Your task to perform on an android device: open app "Microsoft Excel" (install if not already installed) Image 0: 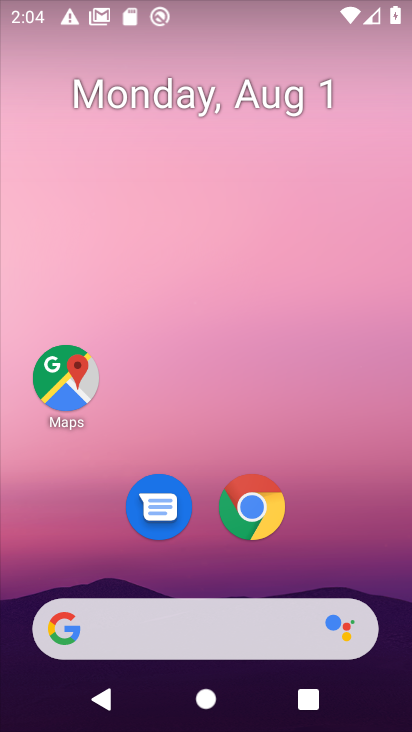
Step 0: drag from (199, 486) to (210, 0)
Your task to perform on an android device: open app "Microsoft Excel" (install if not already installed) Image 1: 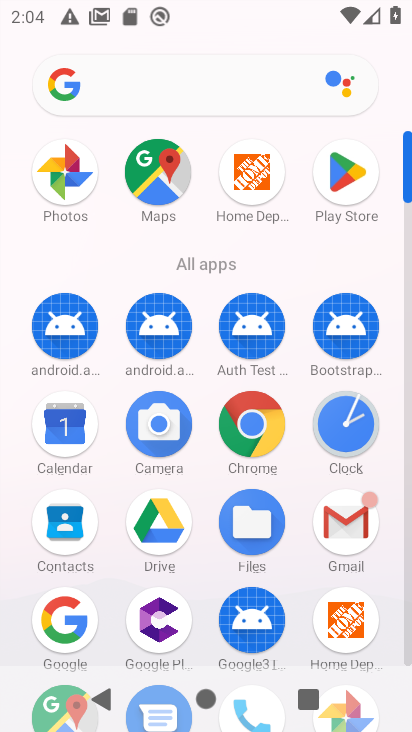
Step 1: click (362, 194)
Your task to perform on an android device: open app "Microsoft Excel" (install if not already installed) Image 2: 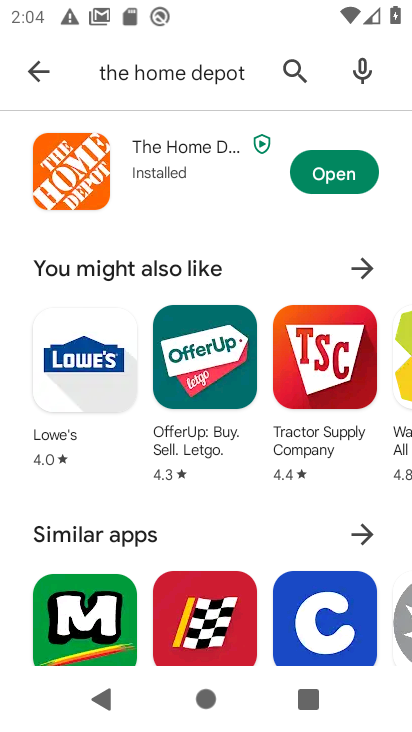
Step 2: click (169, 73)
Your task to perform on an android device: open app "Microsoft Excel" (install if not already installed) Image 3: 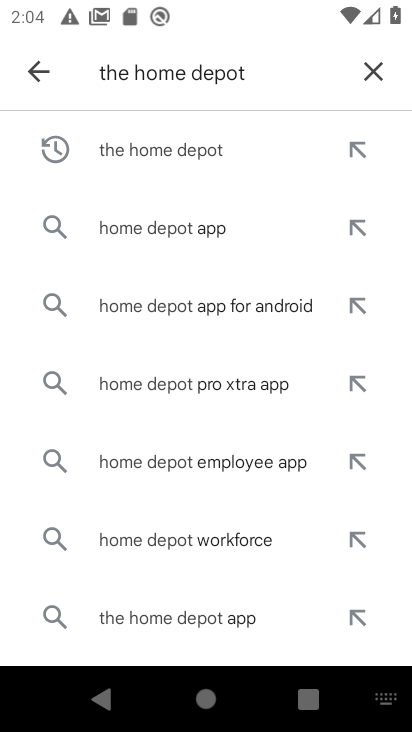
Step 3: click (371, 63)
Your task to perform on an android device: open app "Microsoft Excel" (install if not already installed) Image 4: 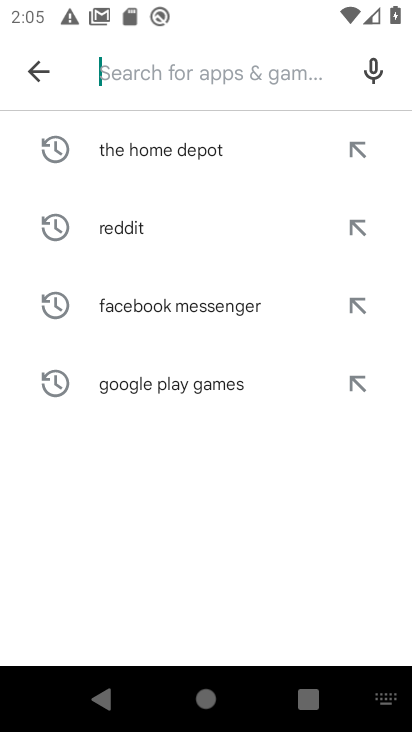
Step 4: type "microsoft excel"
Your task to perform on an android device: open app "Microsoft Excel" (install if not already installed) Image 5: 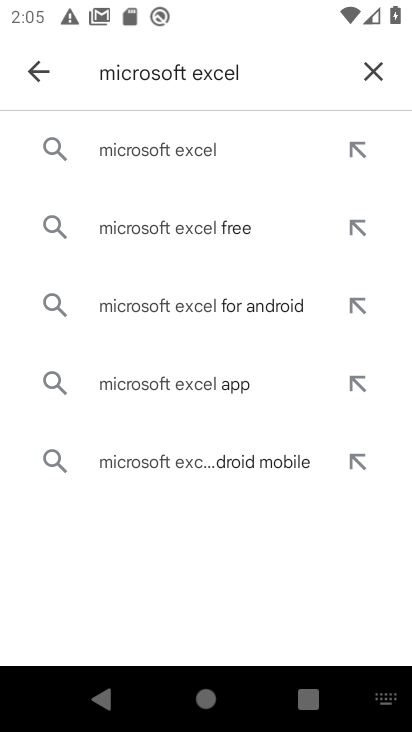
Step 5: click (152, 163)
Your task to perform on an android device: open app "Microsoft Excel" (install if not already installed) Image 6: 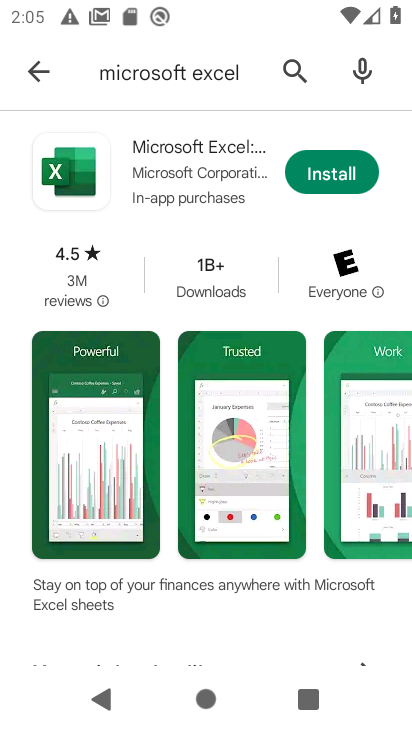
Step 6: click (326, 167)
Your task to perform on an android device: open app "Microsoft Excel" (install if not already installed) Image 7: 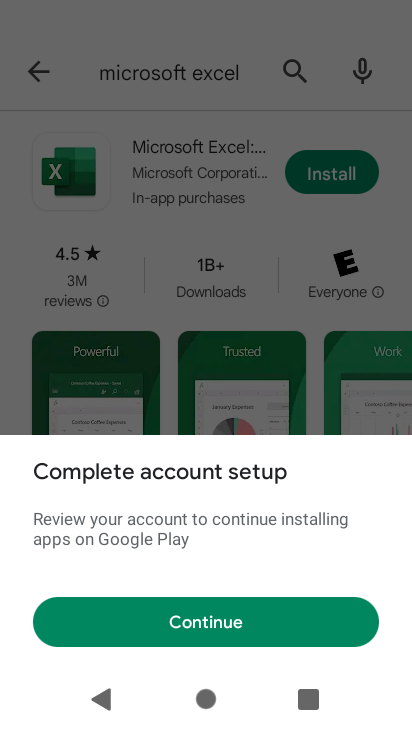
Step 7: click (202, 625)
Your task to perform on an android device: open app "Microsoft Excel" (install if not already installed) Image 8: 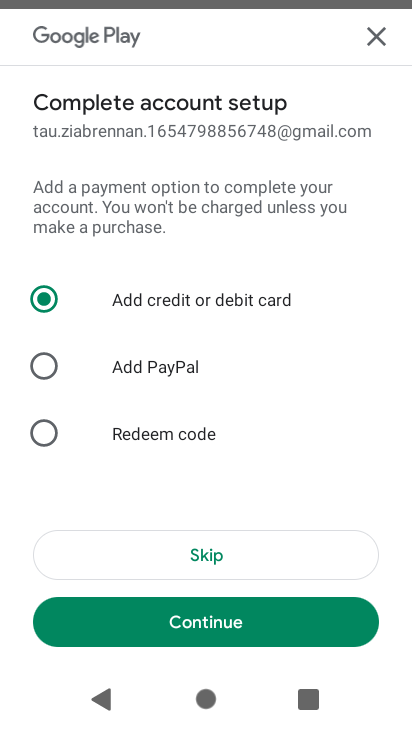
Step 8: click (220, 557)
Your task to perform on an android device: open app "Microsoft Excel" (install if not already installed) Image 9: 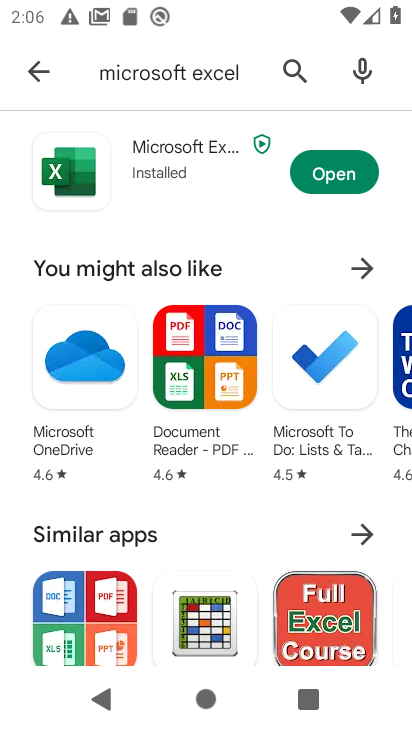
Step 9: click (326, 174)
Your task to perform on an android device: open app "Microsoft Excel" (install if not already installed) Image 10: 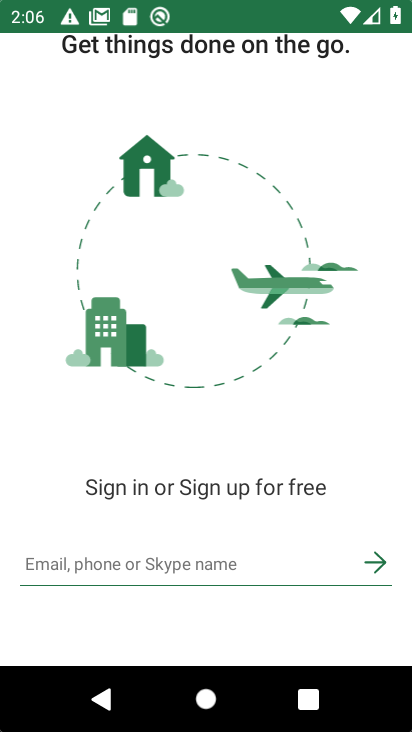
Step 10: task complete